Your task to perform on an android device: Search for flights from Sydney to Buenos aires Image 0: 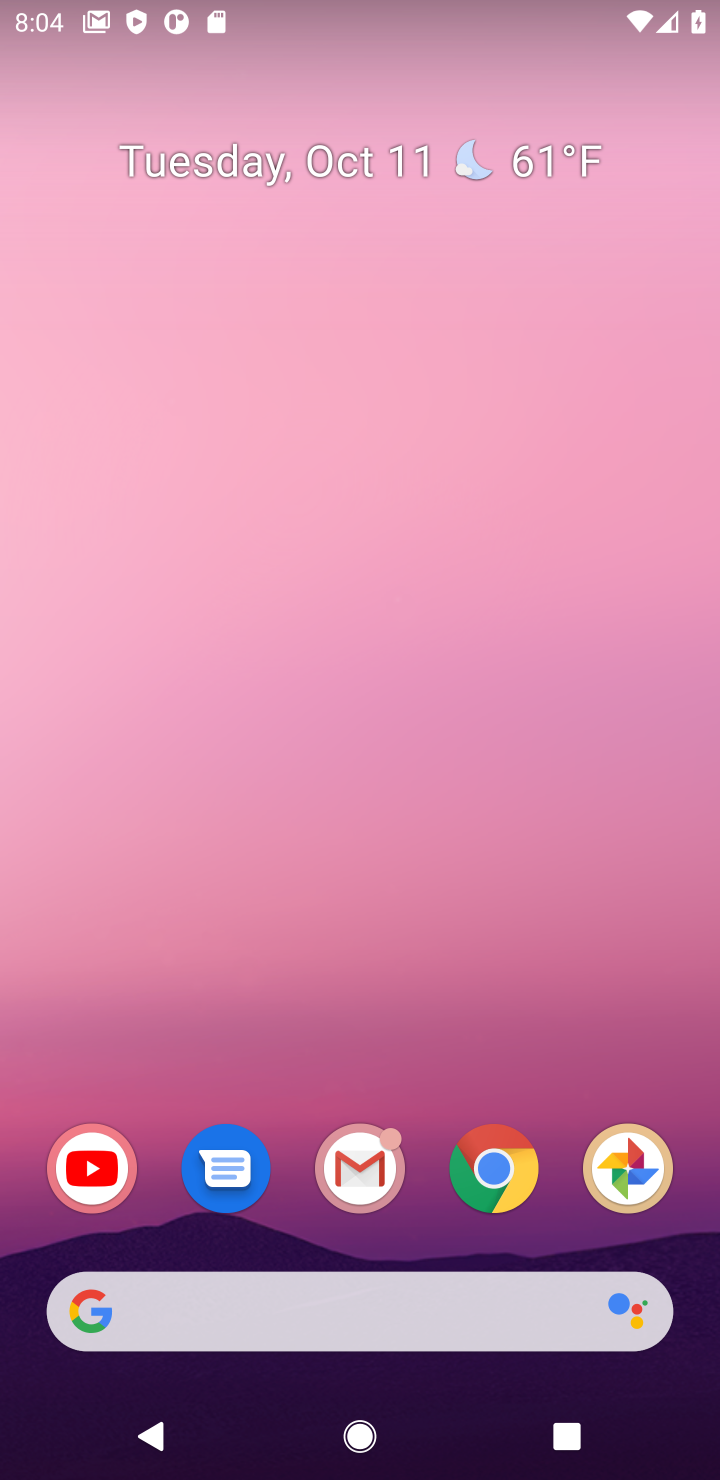
Step 0: click (483, 1170)
Your task to perform on an android device: Search for flights from Sydney to Buenos aires Image 1: 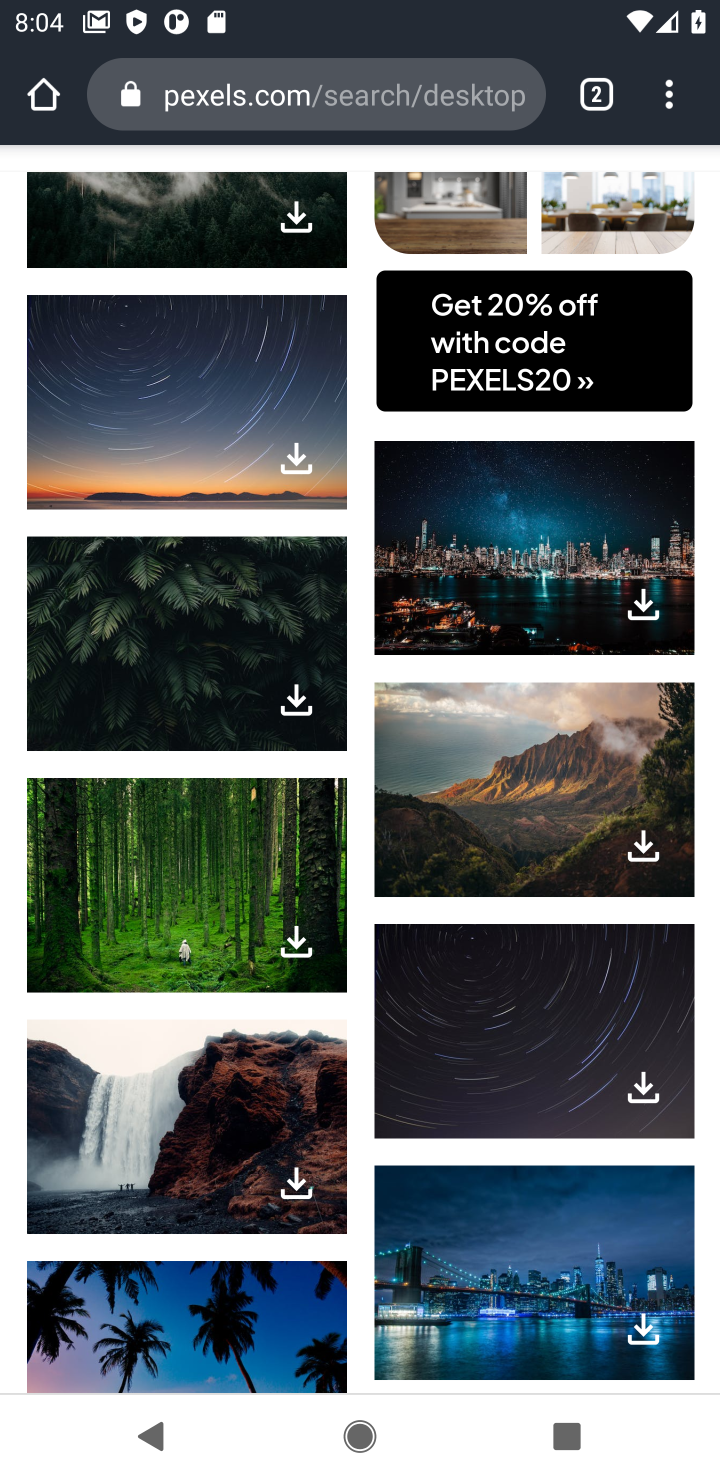
Step 1: click (326, 104)
Your task to perform on an android device: Search for flights from Sydney to Buenos aires Image 2: 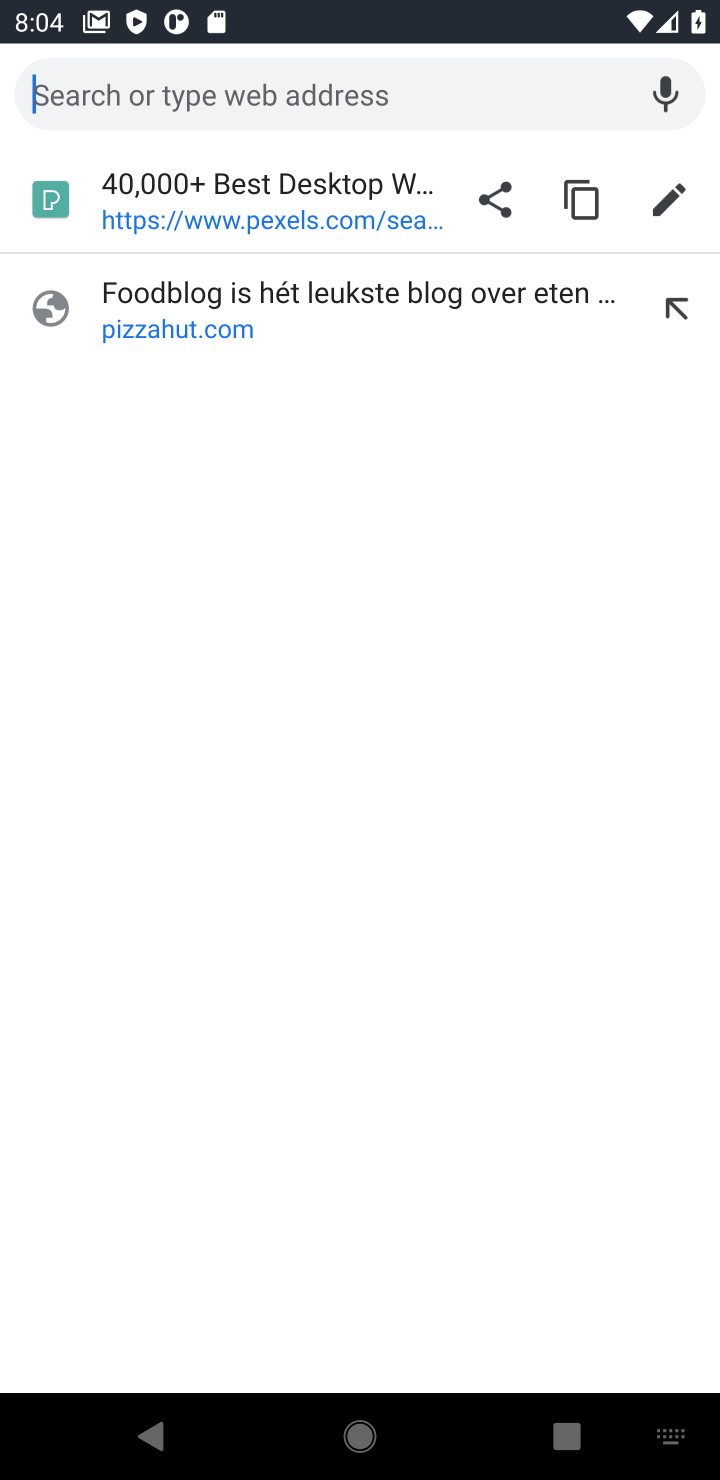
Step 2: type "flight  from sydney to bbuenos aires"
Your task to perform on an android device: Search for flights from Sydney to Buenos aires Image 3: 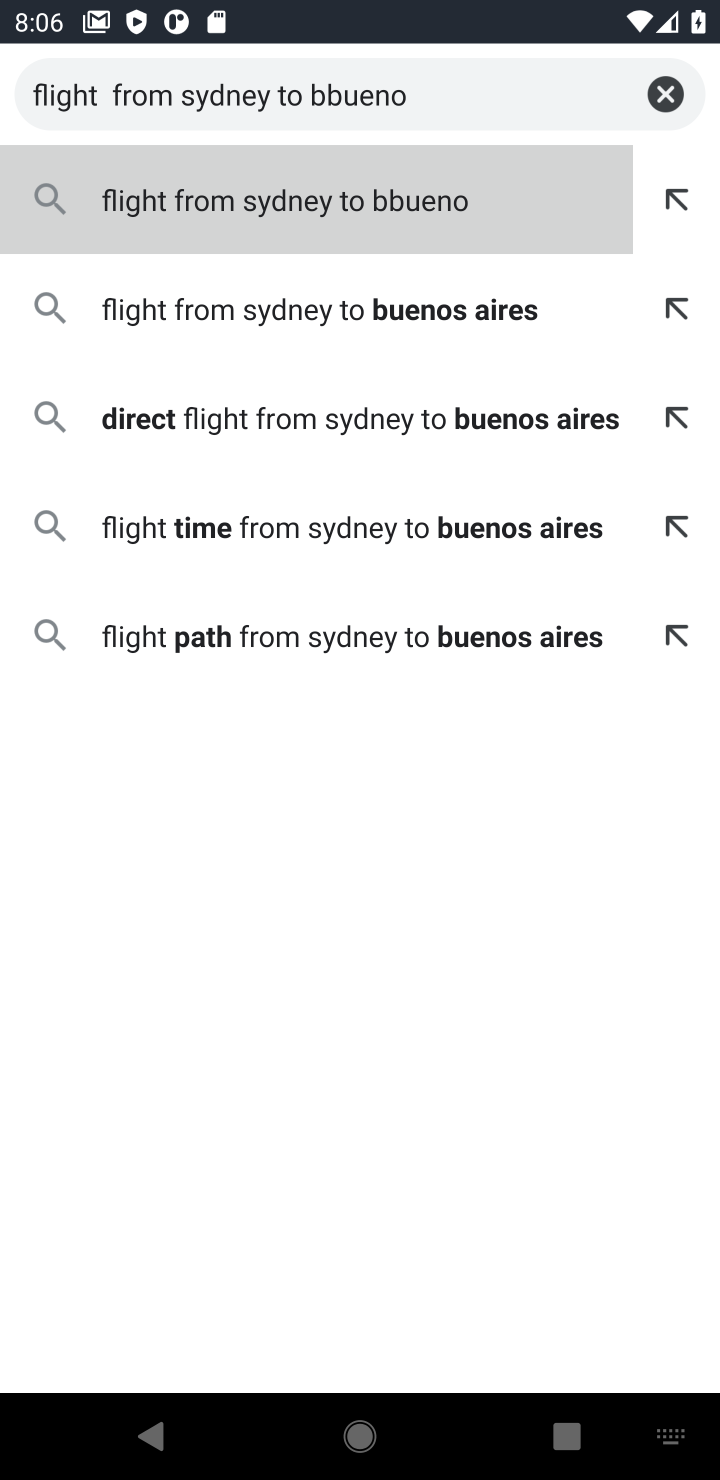
Step 3: click (267, 311)
Your task to perform on an android device: Search for flights from Sydney to Buenos aires Image 4: 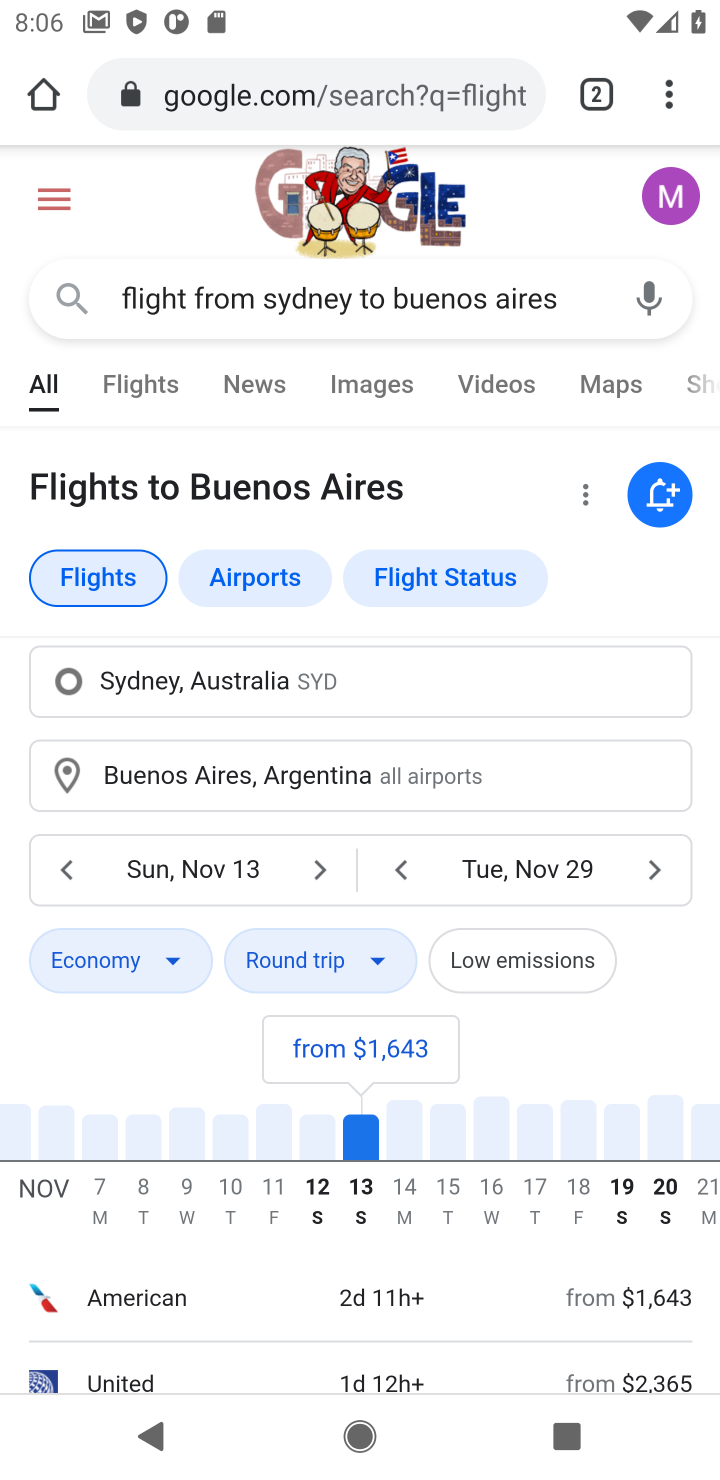
Step 4: drag from (80, 991) to (184, 624)
Your task to perform on an android device: Search for flights from Sydney to Buenos aires Image 5: 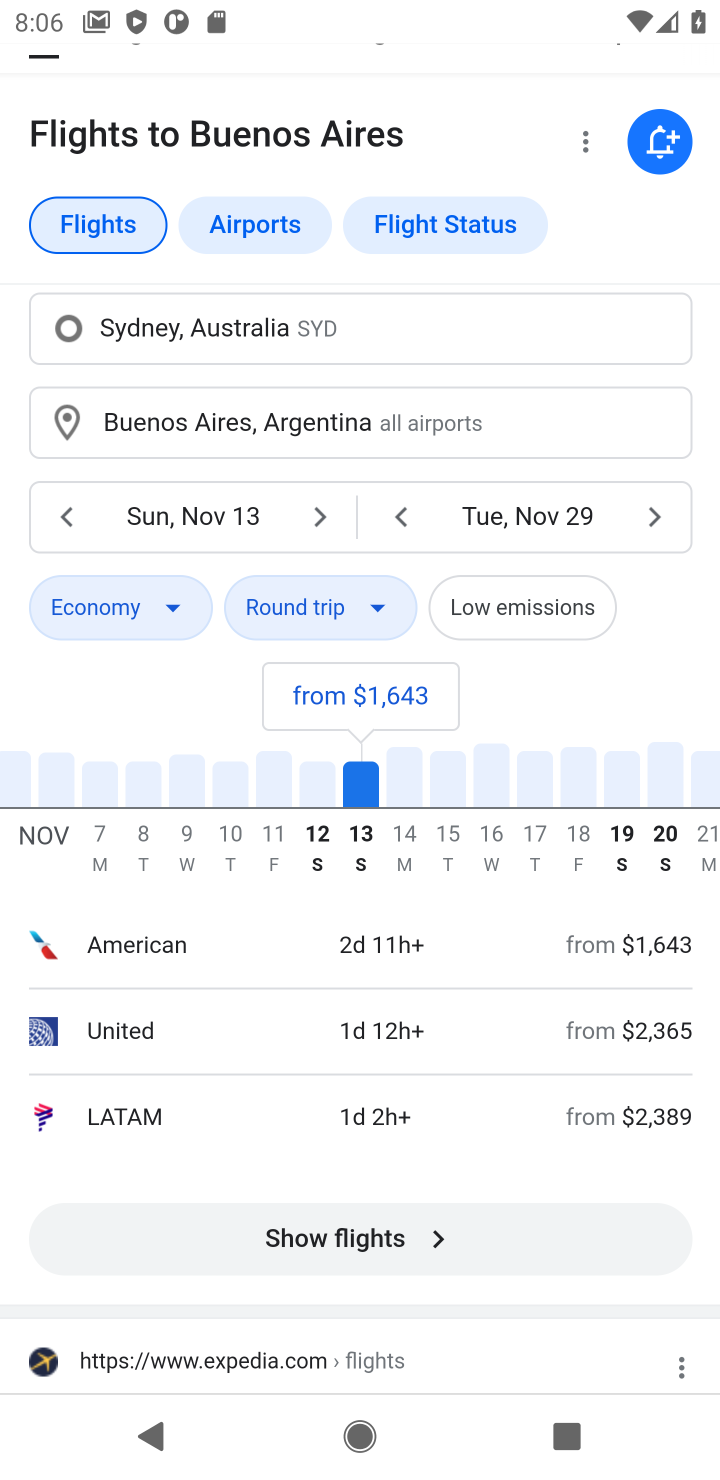
Step 5: click (275, 1240)
Your task to perform on an android device: Search for flights from Sydney to Buenos aires Image 6: 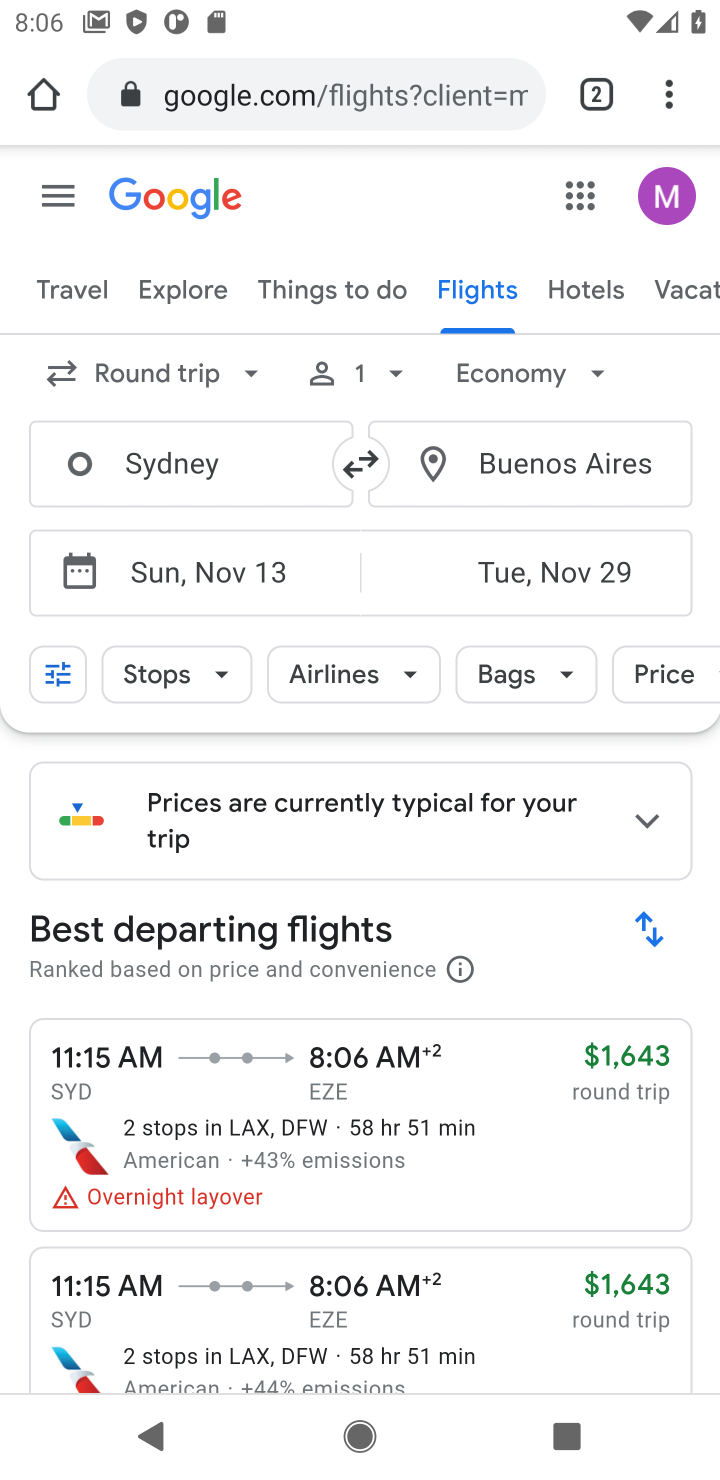
Step 6: task complete